Your task to perform on an android device: Go to CNN.com Image 0: 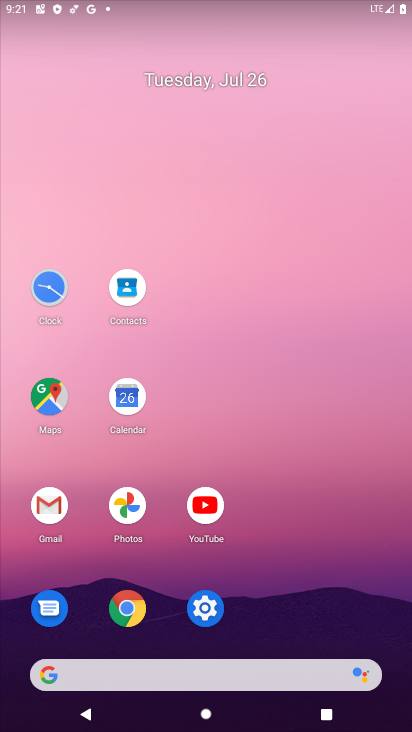
Step 0: click (163, 666)
Your task to perform on an android device: Go to CNN.com Image 1: 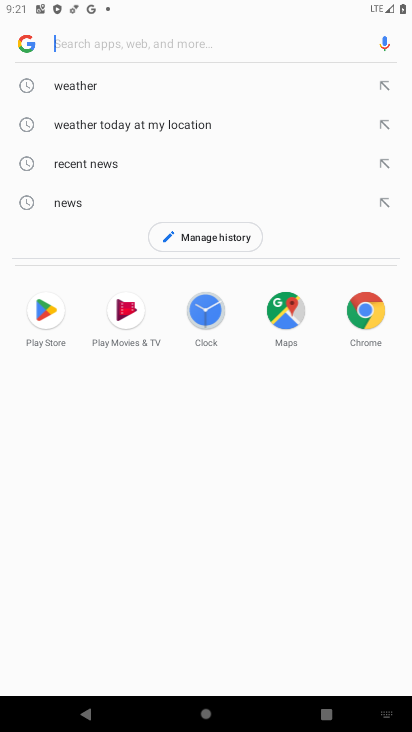
Step 1: type "cnn.com"
Your task to perform on an android device: Go to CNN.com Image 2: 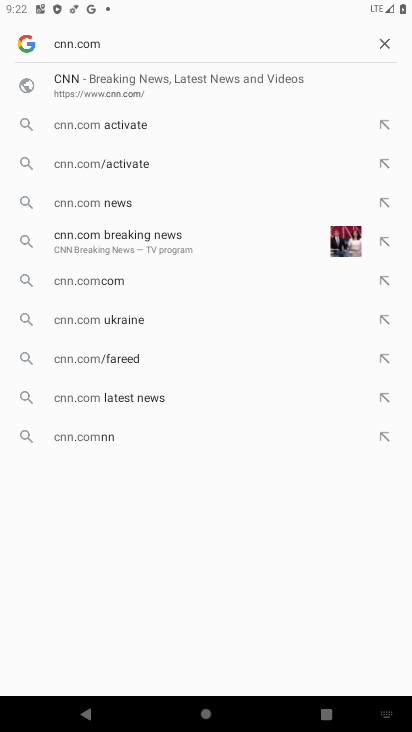
Step 2: click (83, 85)
Your task to perform on an android device: Go to CNN.com Image 3: 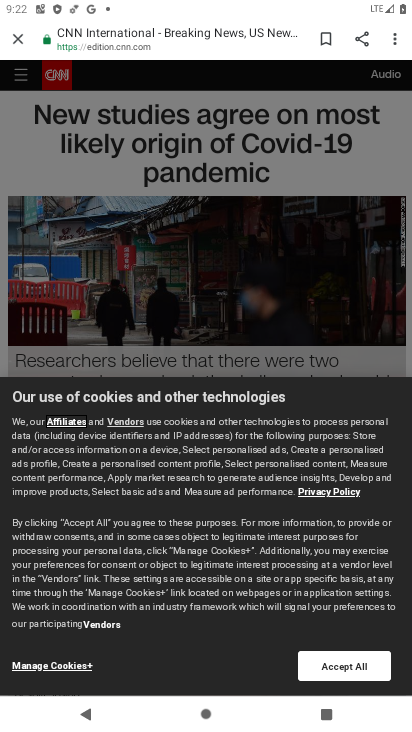
Step 3: task complete